Your task to perform on an android device: toggle priority inbox in the gmail app Image 0: 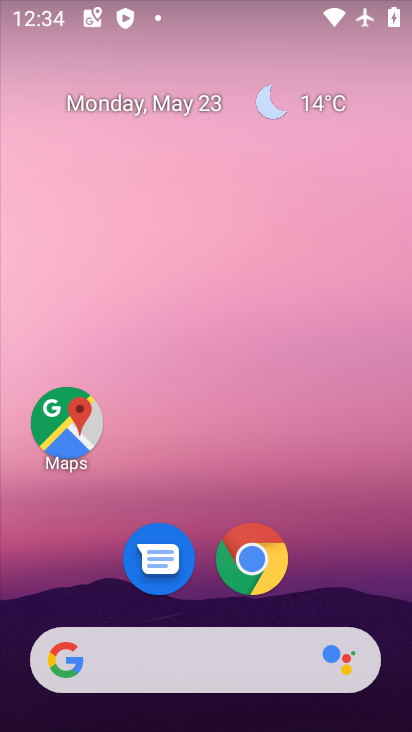
Step 0: drag from (351, 590) to (253, 6)
Your task to perform on an android device: toggle priority inbox in the gmail app Image 1: 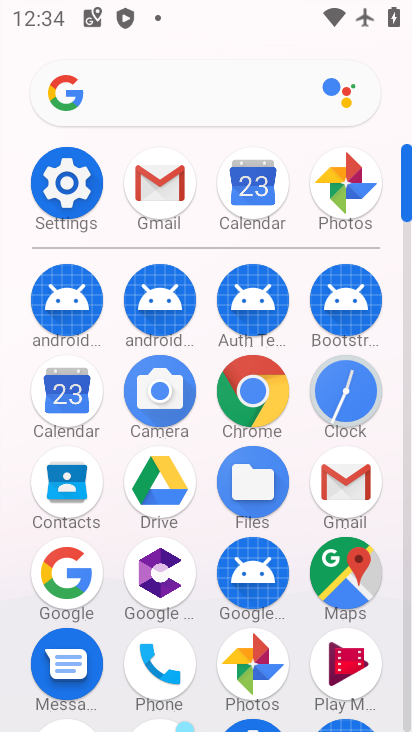
Step 1: click (165, 193)
Your task to perform on an android device: toggle priority inbox in the gmail app Image 2: 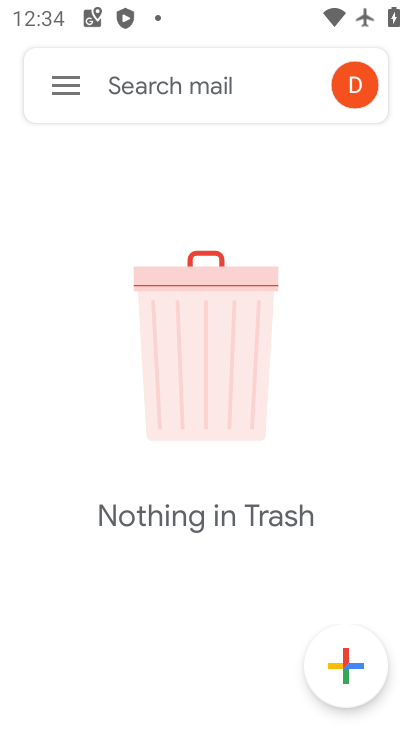
Step 2: click (59, 87)
Your task to perform on an android device: toggle priority inbox in the gmail app Image 3: 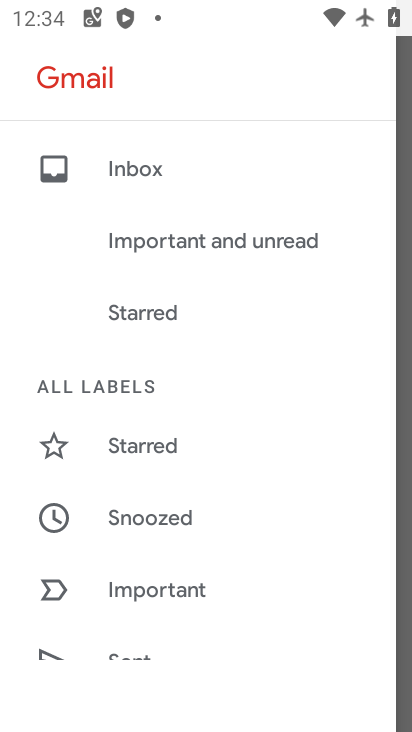
Step 3: drag from (256, 508) to (249, 76)
Your task to perform on an android device: toggle priority inbox in the gmail app Image 4: 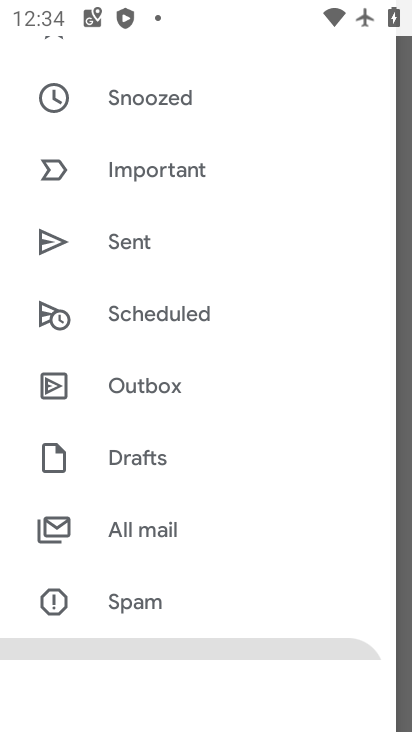
Step 4: drag from (238, 546) to (267, 173)
Your task to perform on an android device: toggle priority inbox in the gmail app Image 5: 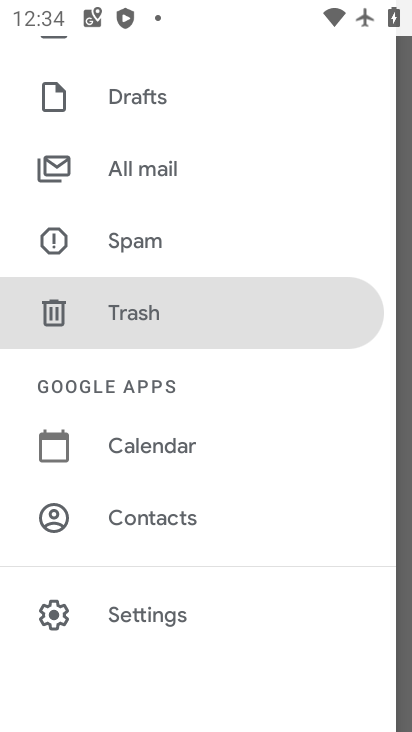
Step 5: click (147, 614)
Your task to perform on an android device: toggle priority inbox in the gmail app Image 6: 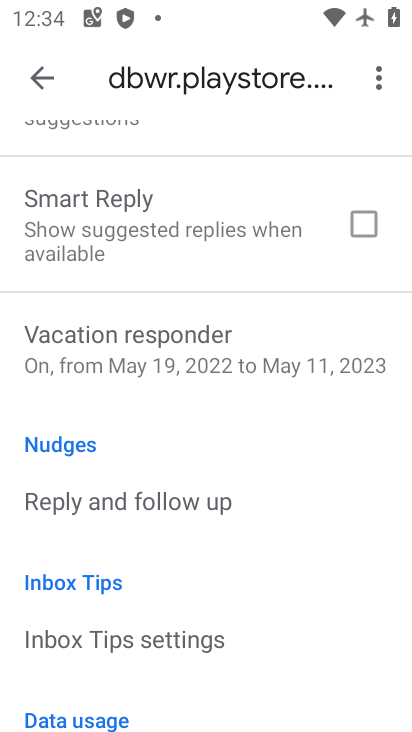
Step 6: drag from (140, 217) to (152, 655)
Your task to perform on an android device: toggle priority inbox in the gmail app Image 7: 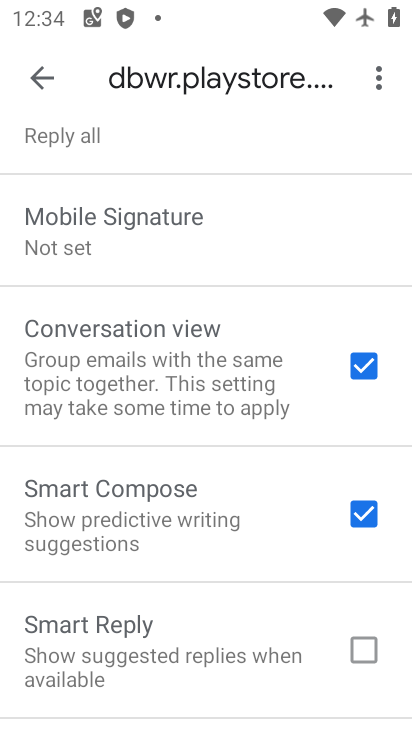
Step 7: drag from (129, 200) to (138, 643)
Your task to perform on an android device: toggle priority inbox in the gmail app Image 8: 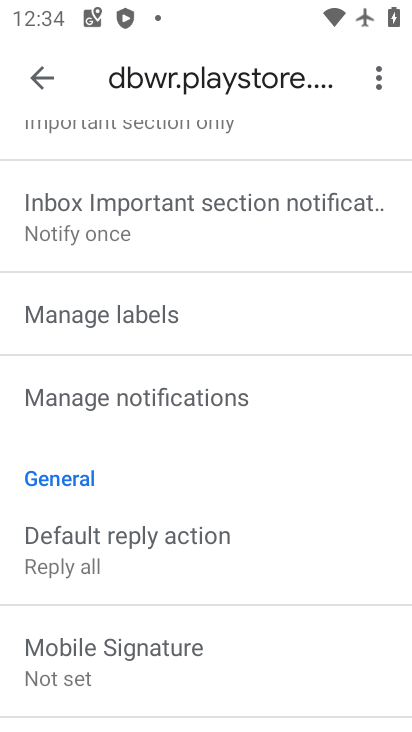
Step 8: drag from (111, 232) to (125, 693)
Your task to perform on an android device: toggle priority inbox in the gmail app Image 9: 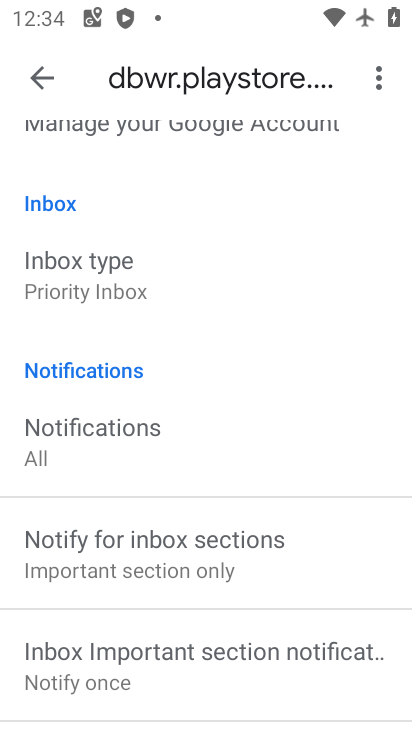
Step 9: click (114, 282)
Your task to perform on an android device: toggle priority inbox in the gmail app Image 10: 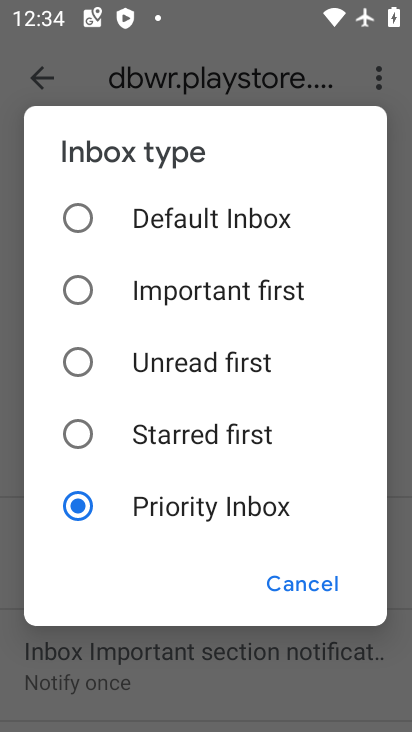
Step 10: click (75, 213)
Your task to perform on an android device: toggle priority inbox in the gmail app Image 11: 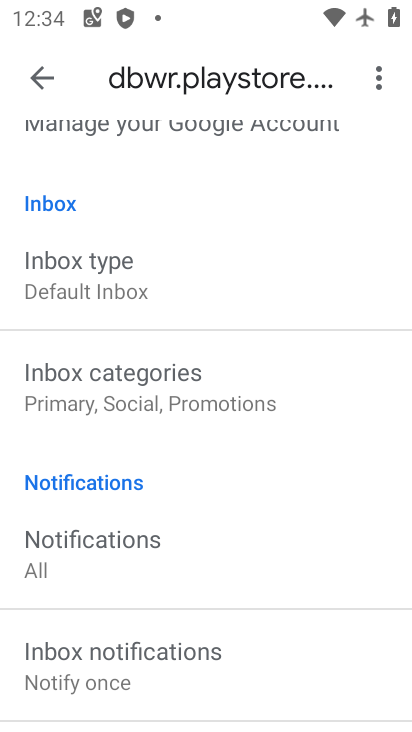
Step 11: task complete